Your task to perform on an android device: search for starred emails in the gmail app Image 0: 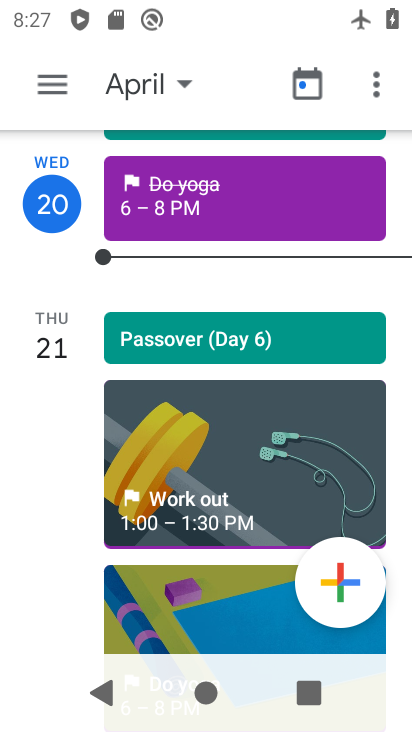
Step 0: press home button
Your task to perform on an android device: search for starred emails in the gmail app Image 1: 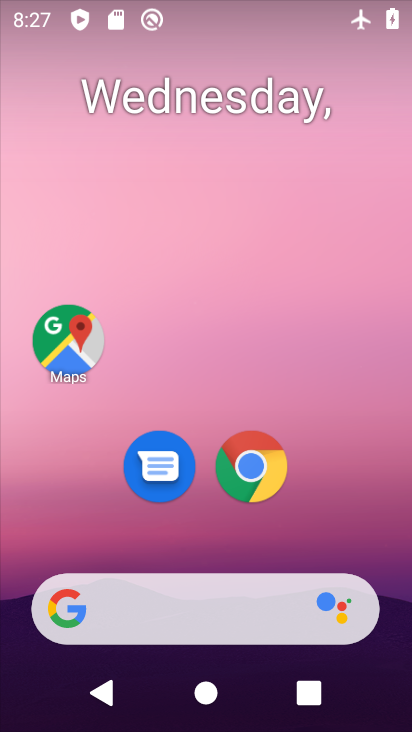
Step 1: drag from (349, 537) to (288, 136)
Your task to perform on an android device: search for starred emails in the gmail app Image 2: 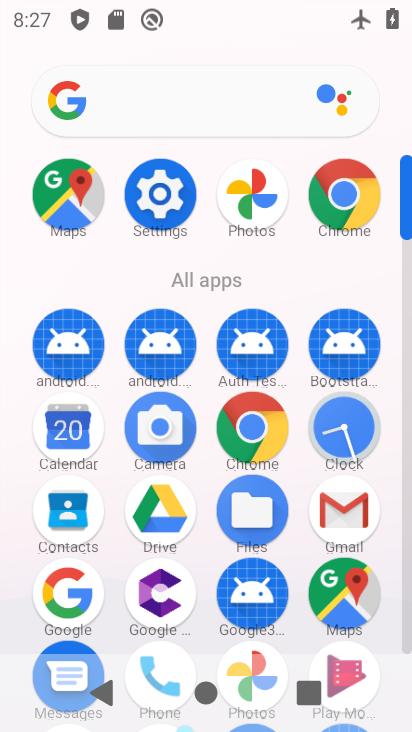
Step 2: click (342, 511)
Your task to perform on an android device: search for starred emails in the gmail app Image 3: 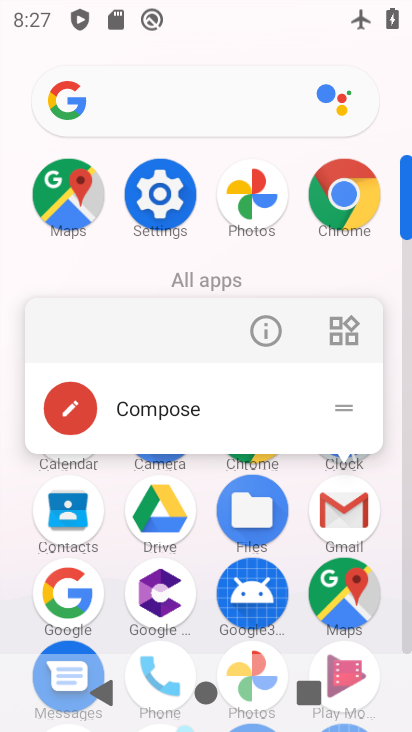
Step 3: click (365, 520)
Your task to perform on an android device: search for starred emails in the gmail app Image 4: 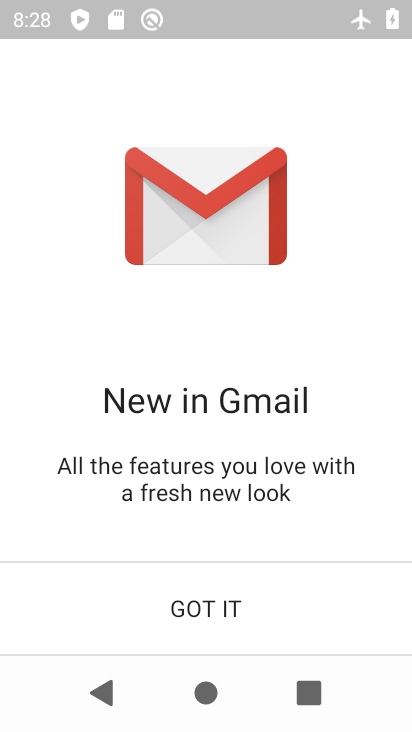
Step 4: click (346, 605)
Your task to perform on an android device: search for starred emails in the gmail app Image 5: 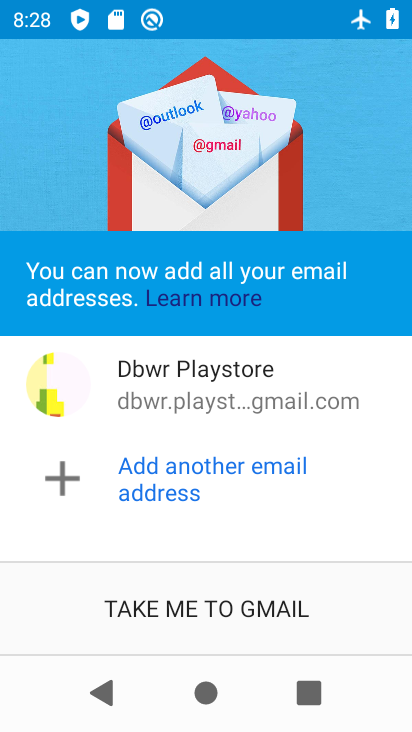
Step 5: click (313, 595)
Your task to perform on an android device: search for starred emails in the gmail app Image 6: 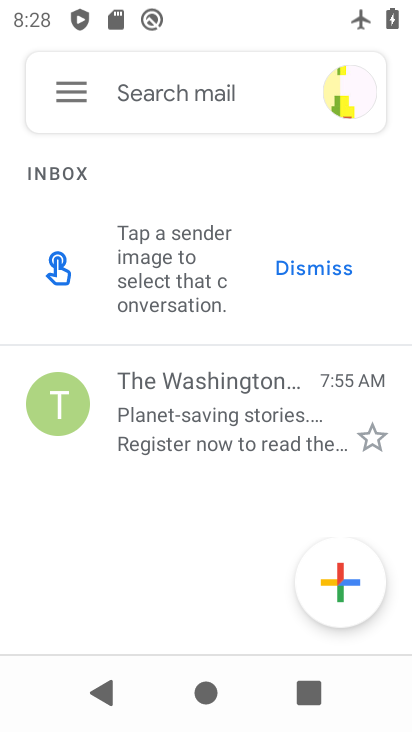
Step 6: click (75, 97)
Your task to perform on an android device: search for starred emails in the gmail app Image 7: 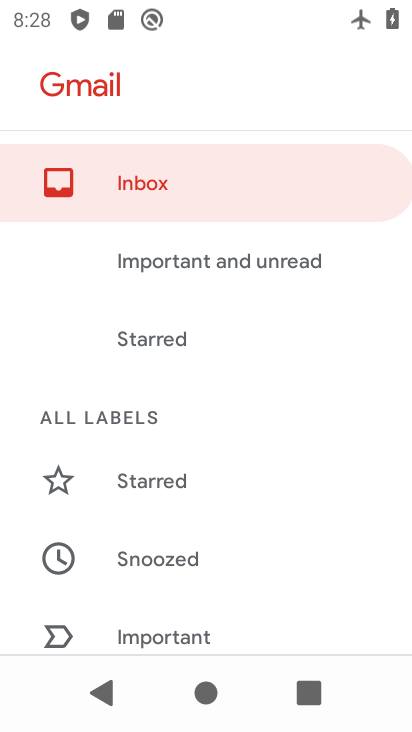
Step 7: click (169, 330)
Your task to perform on an android device: search for starred emails in the gmail app Image 8: 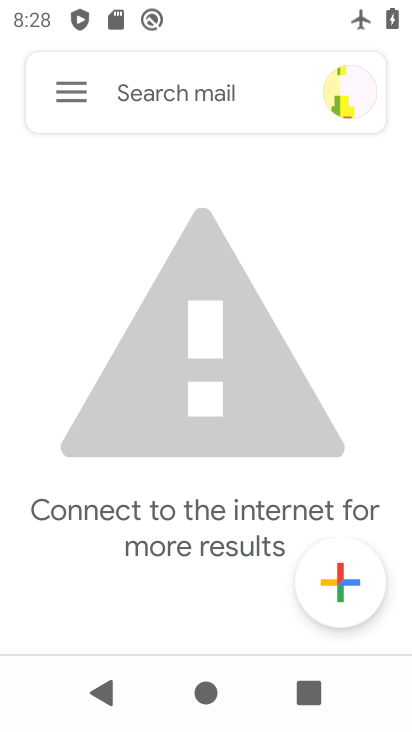
Step 8: drag from (382, 12) to (354, 523)
Your task to perform on an android device: search for starred emails in the gmail app Image 9: 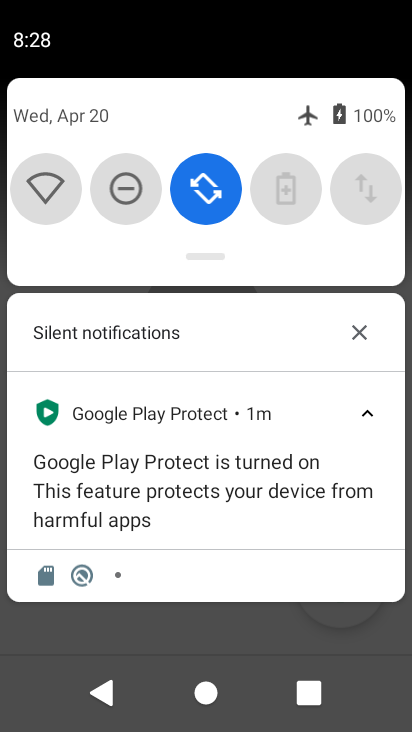
Step 9: drag from (355, 195) to (0, 162)
Your task to perform on an android device: search for starred emails in the gmail app Image 10: 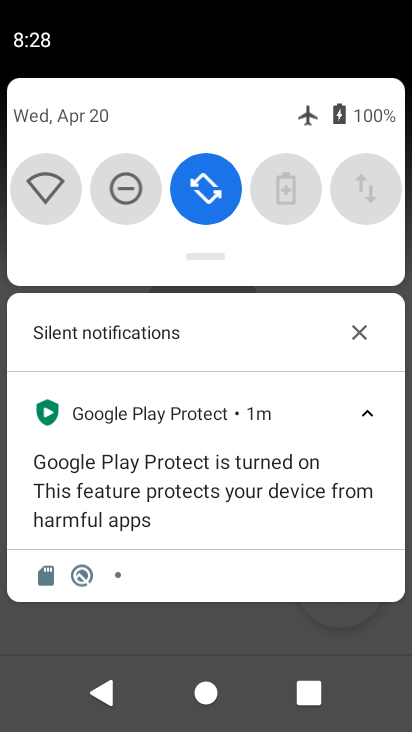
Step 10: drag from (292, 201) to (50, 223)
Your task to perform on an android device: search for starred emails in the gmail app Image 11: 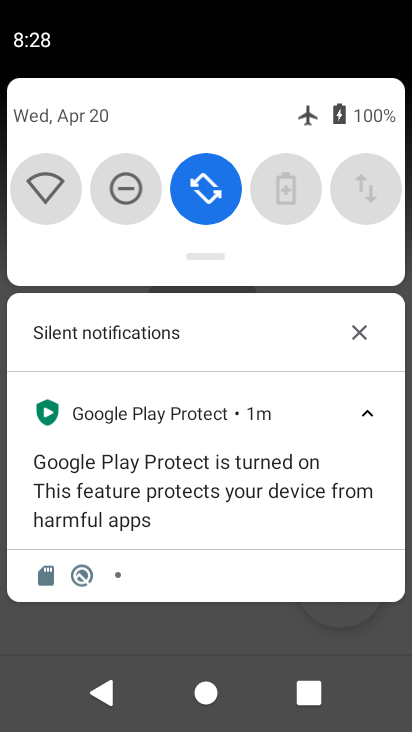
Step 11: click (215, 253)
Your task to perform on an android device: search for starred emails in the gmail app Image 12: 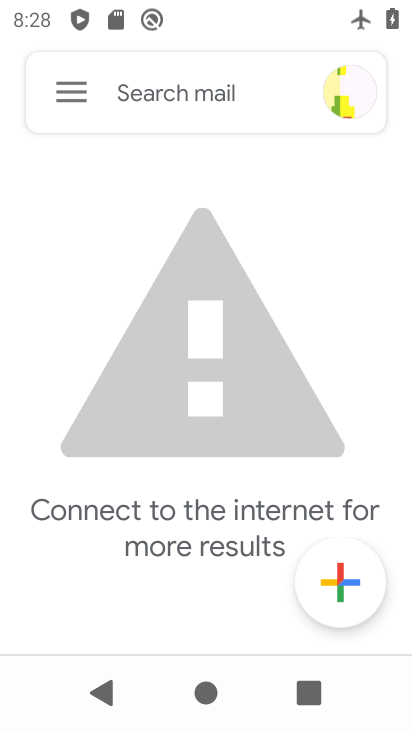
Step 12: task complete